Your task to perform on an android device: turn on javascript in the chrome app Image 0: 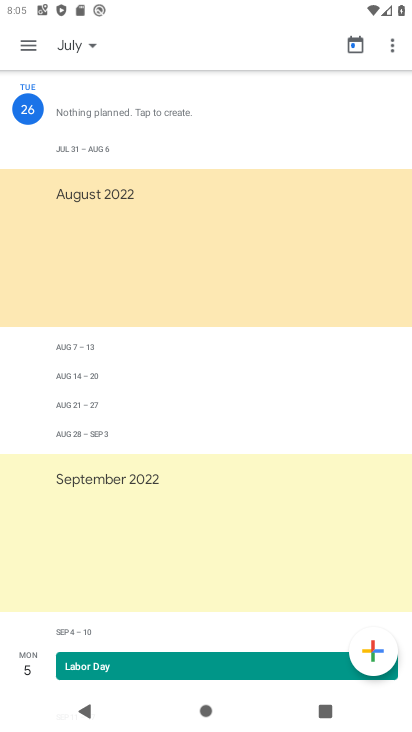
Step 0: press home button
Your task to perform on an android device: turn on javascript in the chrome app Image 1: 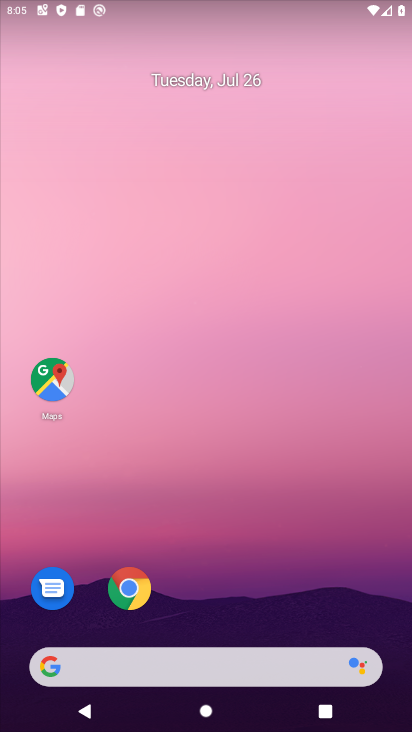
Step 1: click (140, 578)
Your task to perform on an android device: turn on javascript in the chrome app Image 2: 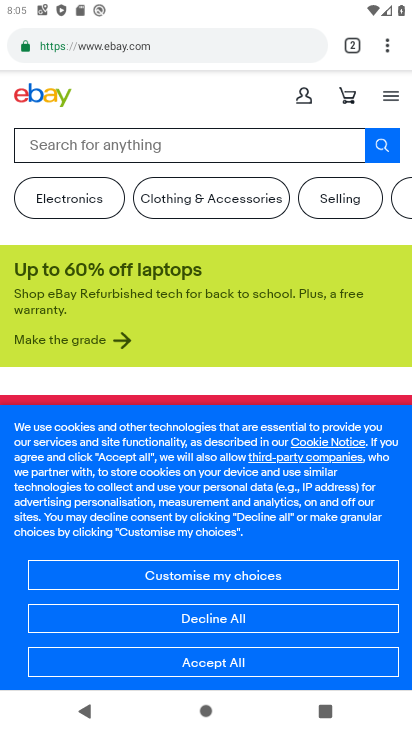
Step 2: task complete